Your task to perform on an android device: turn on airplane mode Image 0: 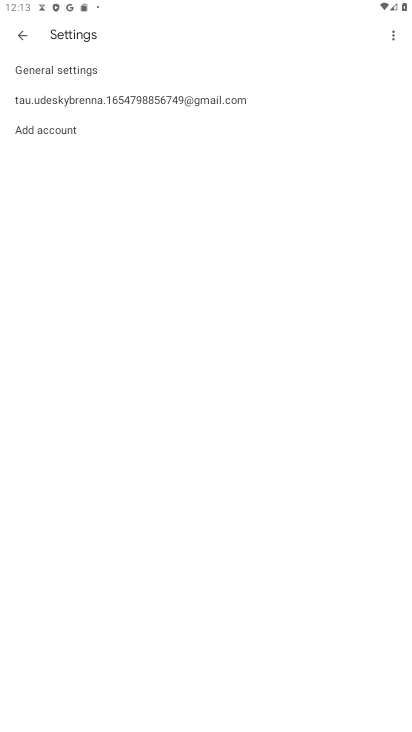
Step 0: press home button
Your task to perform on an android device: turn on airplane mode Image 1: 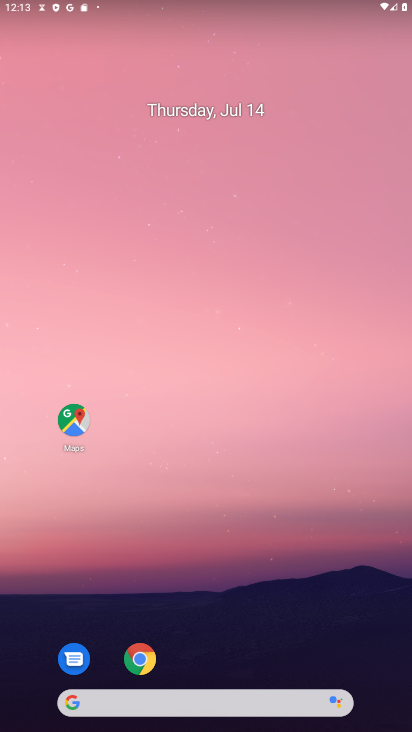
Step 1: drag from (181, 403) to (1, 578)
Your task to perform on an android device: turn on airplane mode Image 2: 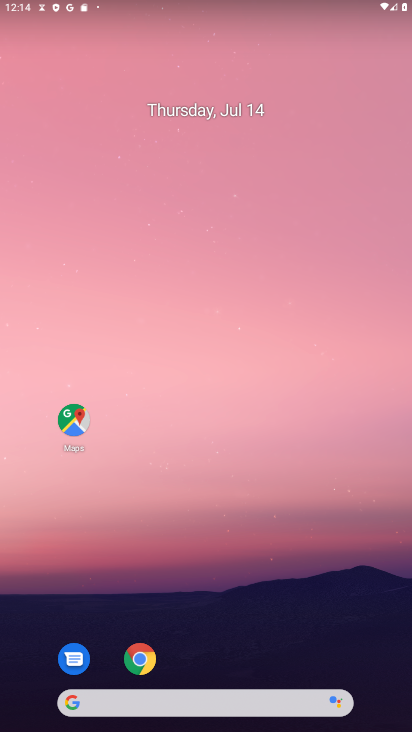
Step 2: drag from (33, 678) to (258, 35)
Your task to perform on an android device: turn on airplane mode Image 3: 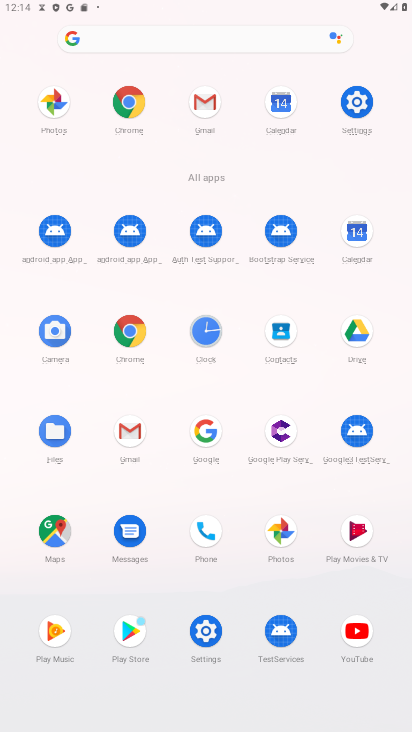
Step 3: click (214, 633)
Your task to perform on an android device: turn on airplane mode Image 4: 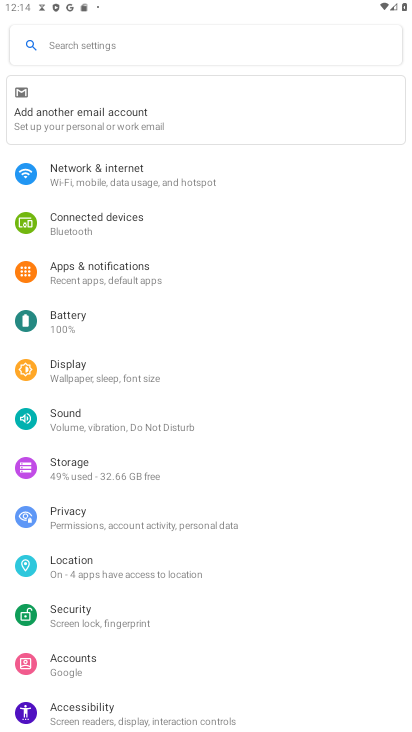
Step 4: click (143, 179)
Your task to perform on an android device: turn on airplane mode Image 5: 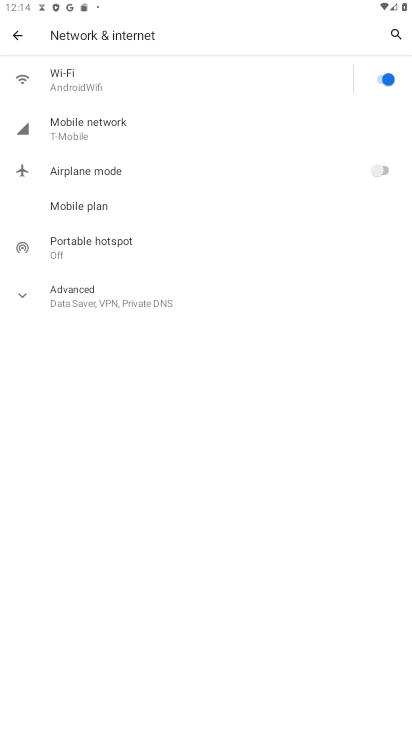
Step 5: click (379, 171)
Your task to perform on an android device: turn on airplane mode Image 6: 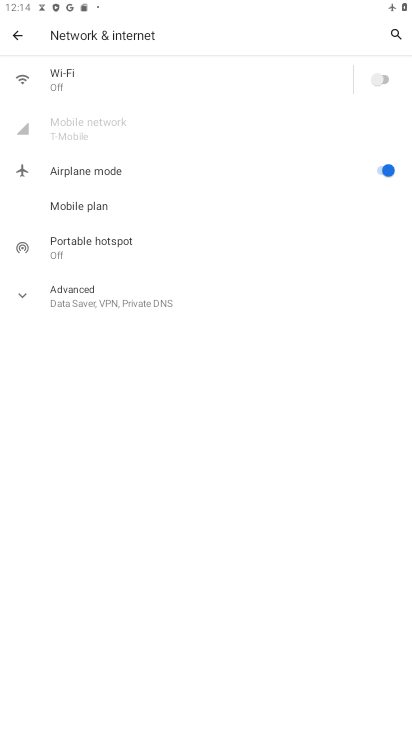
Step 6: task complete